Your task to perform on an android device: toggle location history Image 0: 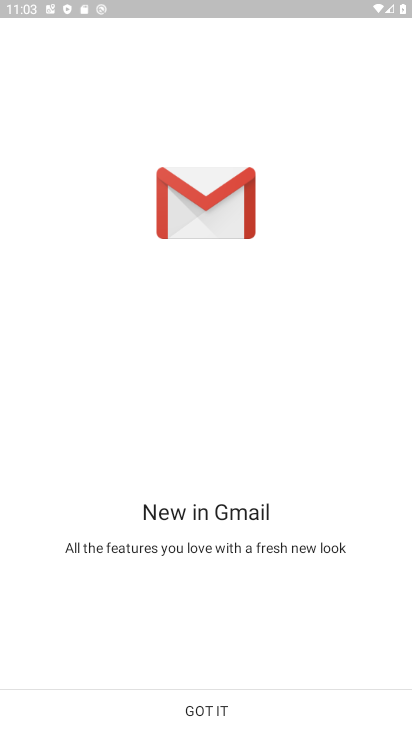
Step 0: press home button
Your task to perform on an android device: toggle location history Image 1: 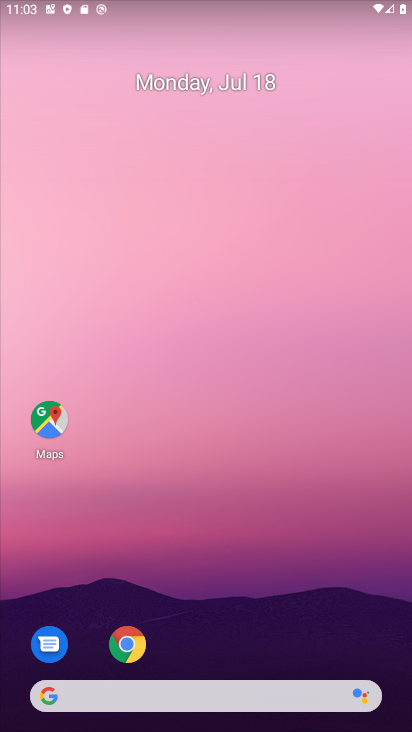
Step 1: drag from (244, 721) to (232, 184)
Your task to perform on an android device: toggle location history Image 2: 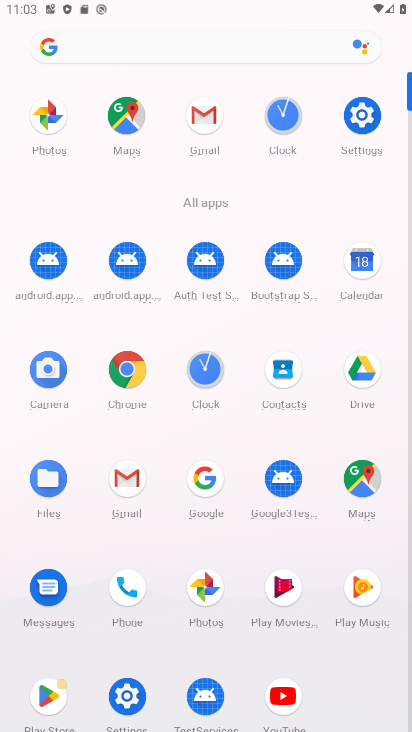
Step 2: click (357, 123)
Your task to perform on an android device: toggle location history Image 3: 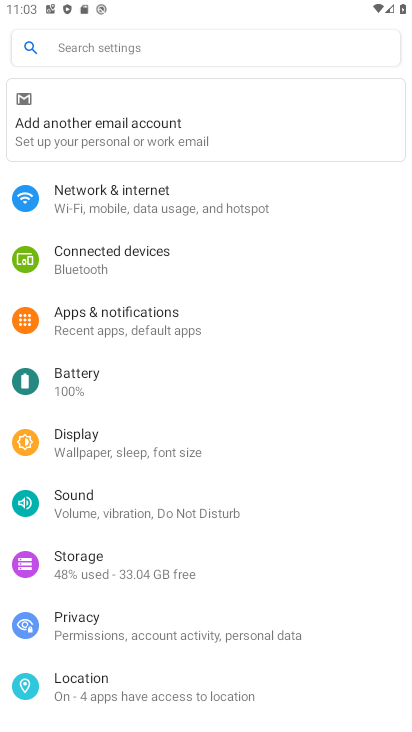
Step 3: click (70, 680)
Your task to perform on an android device: toggle location history Image 4: 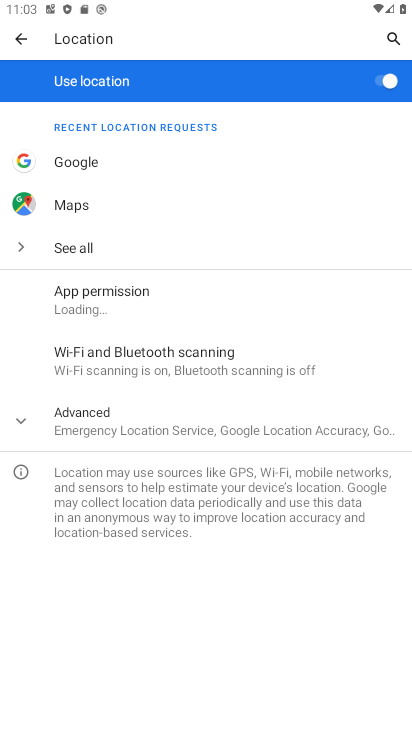
Step 4: click (107, 423)
Your task to perform on an android device: toggle location history Image 5: 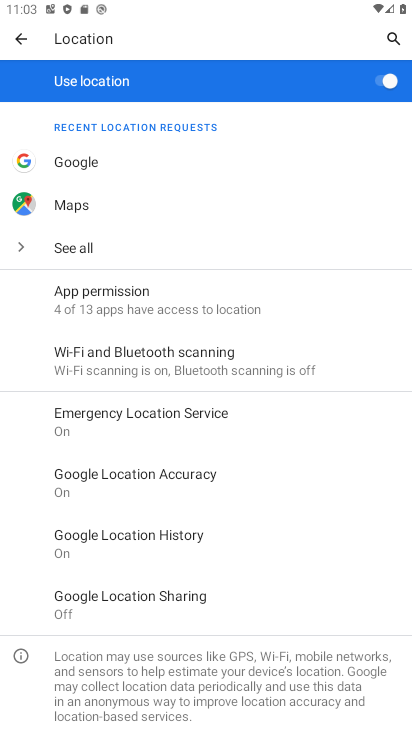
Step 5: click (100, 533)
Your task to perform on an android device: toggle location history Image 6: 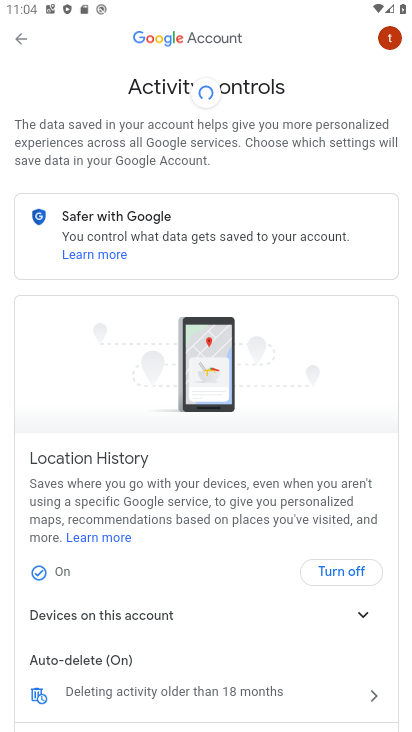
Step 6: click (334, 569)
Your task to perform on an android device: toggle location history Image 7: 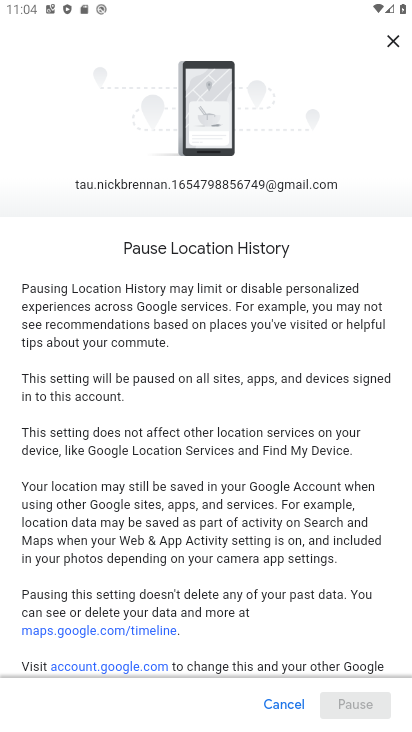
Step 7: drag from (315, 630) to (312, 391)
Your task to perform on an android device: toggle location history Image 8: 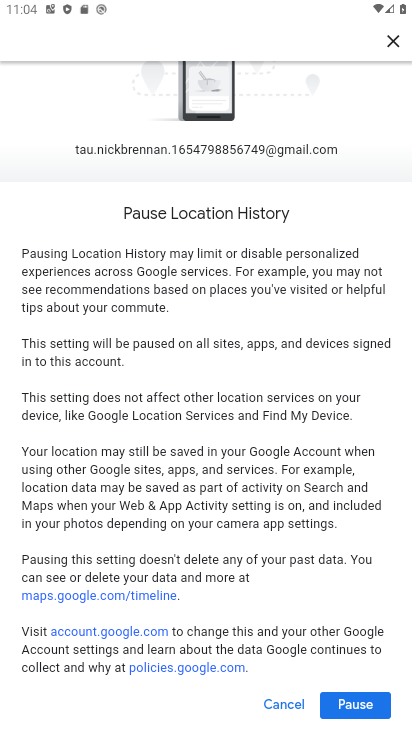
Step 8: click (374, 705)
Your task to perform on an android device: toggle location history Image 9: 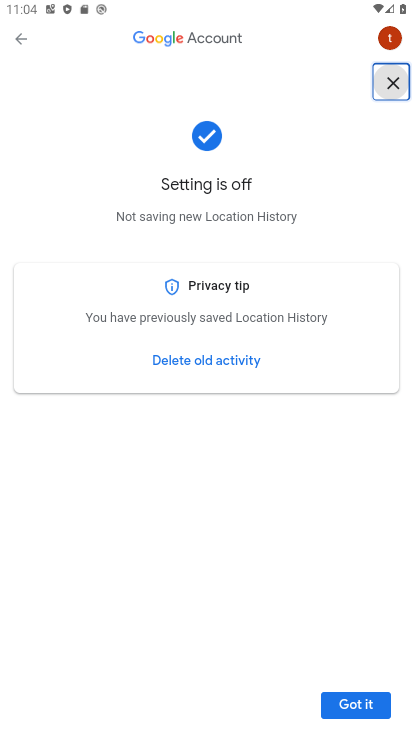
Step 9: task complete